Your task to perform on an android device: What is the news today? Image 0: 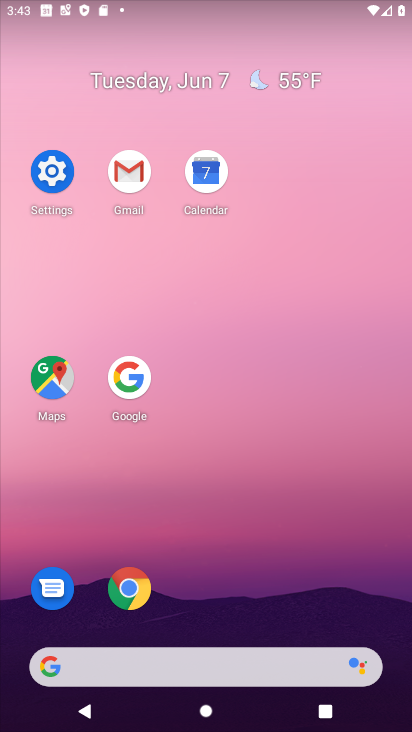
Step 0: click (141, 386)
Your task to perform on an android device: What is the news today? Image 1: 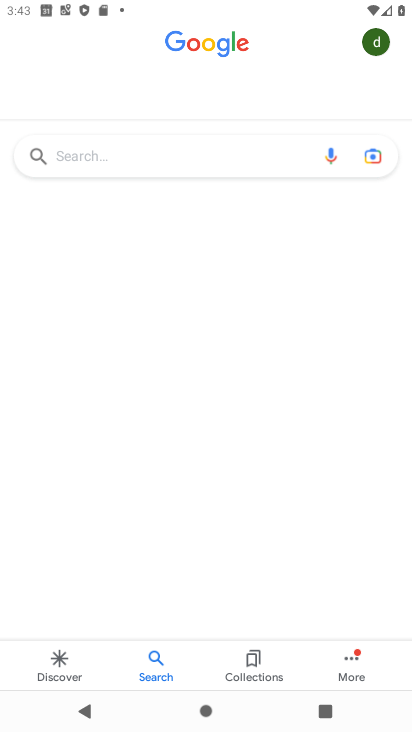
Step 1: click (154, 163)
Your task to perform on an android device: What is the news today? Image 2: 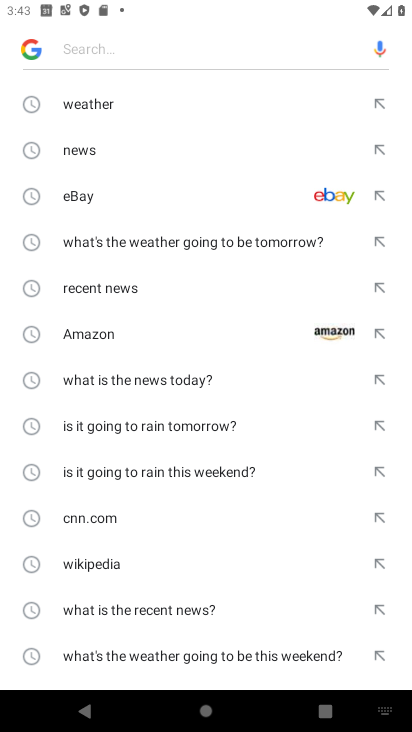
Step 2: click (134, 151)
Your task to perform on an android device: What is the news today? Image 3: 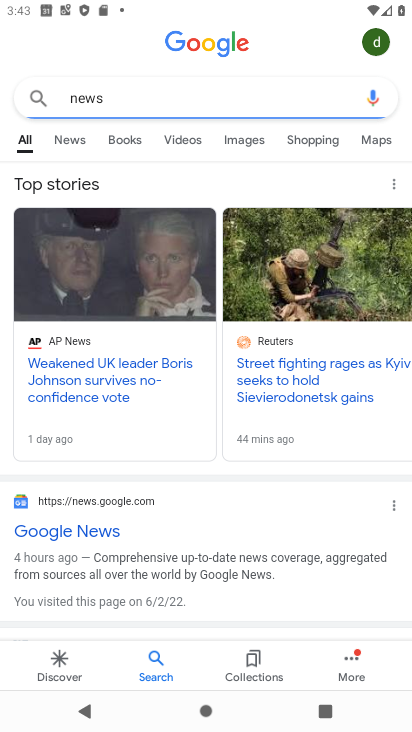
Step 3: task complete